Your task to perform on an android device: clear all cookies in the chrome app Image 0: 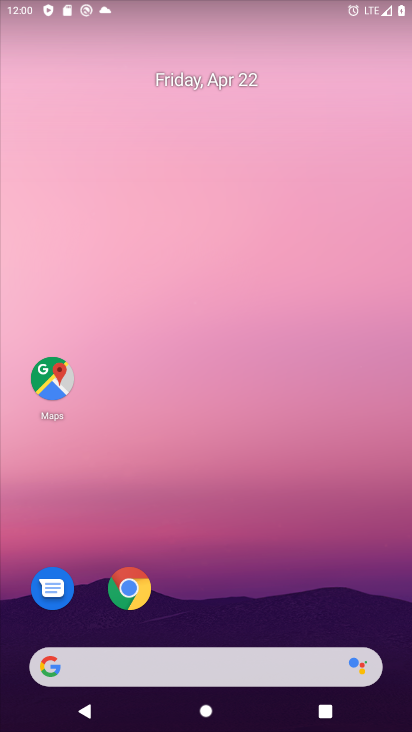
Step 0: drag from (229, 688) to (223, 205)
Your task to perform on an android device: clear all cookies in the chrome app Image 1: 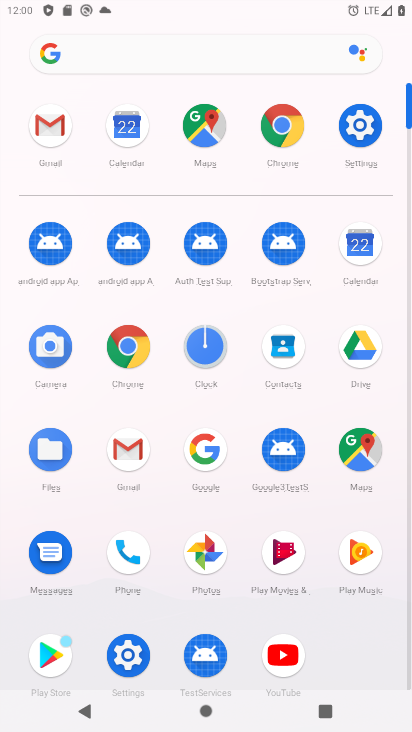
Step 1: click (139, 349)
Your task to perform on an android device: clear all cookies in the chrome app Image 2: 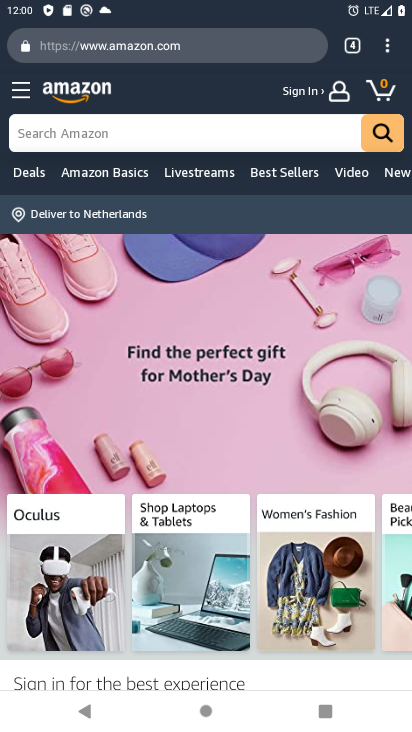
Step 2: click (382, 53)
Your task to perform on an android device: clear all cookies in the chrome app Image 3: 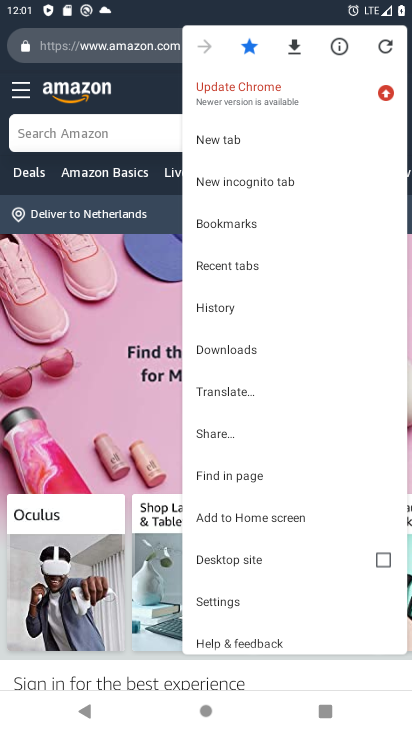
Step 3: click (236, 605)
Your task to perform on an android device: clear all cookies in the chrome app Image 4: 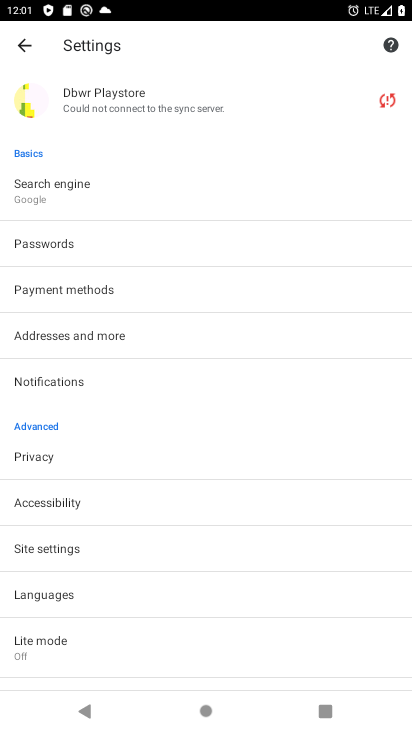
Step 4: click (64, 549)
Your task to perform on an android device: clear all cookies in the chrome app Image 5: 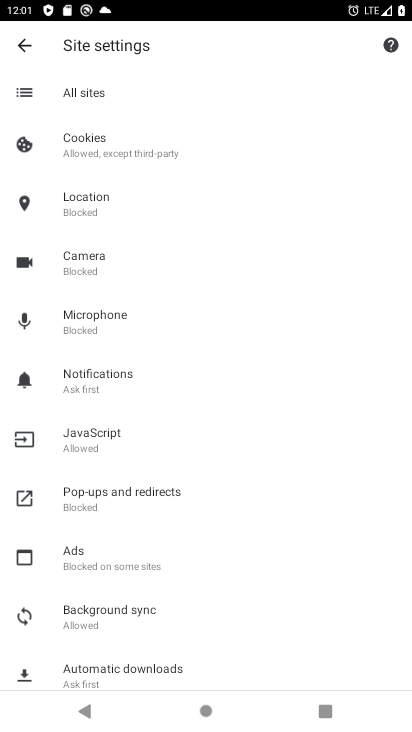
Step 5: click (30, 48)
Your task to perform on an android device: clear all cookies in the chrome app Image 6: 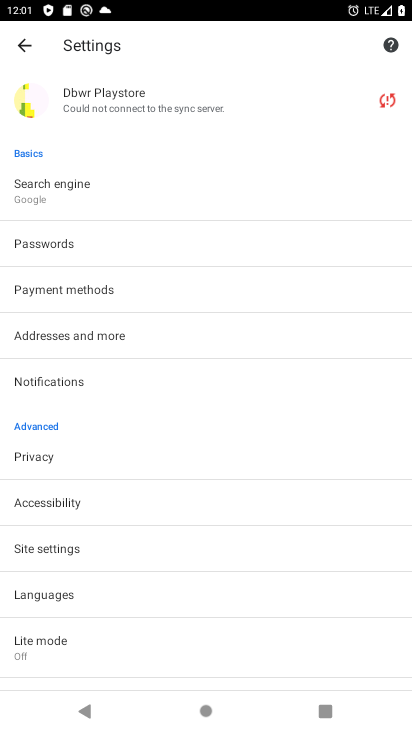
Step 6: click (66, 462)
Your task to perform on an android device: clear all cookies in the chrome app Image 7: 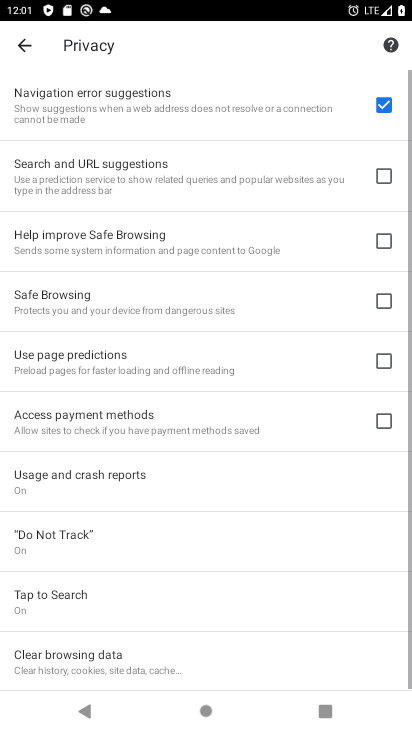
Step 7: click (143, 642)
Your task to perform on an android device: clear all cookies in the chrome app Image 8: 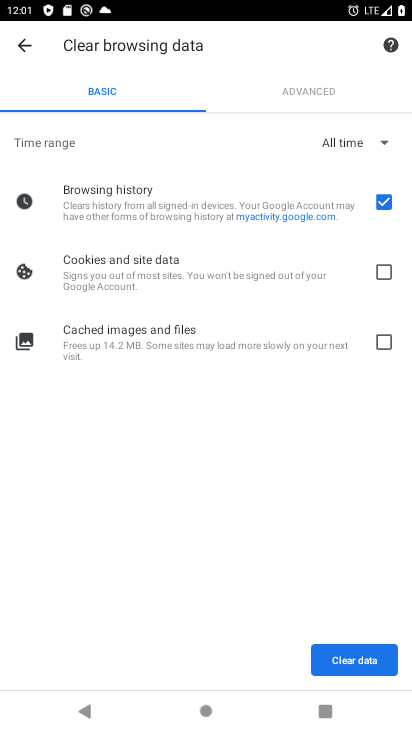
Step 8: click (391, 200)
Your task to perform on an android device: clear all cookies in the chrome app Image 9: 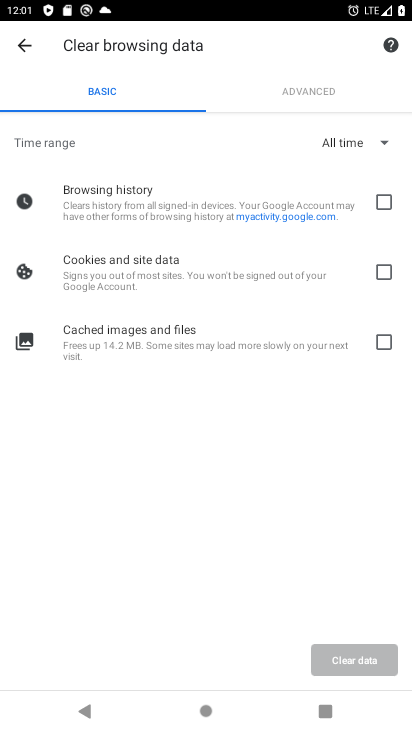
Step 9: click (382, 280)
Your task to perform on an android device: clear all cookies in the chrome app Image 10: 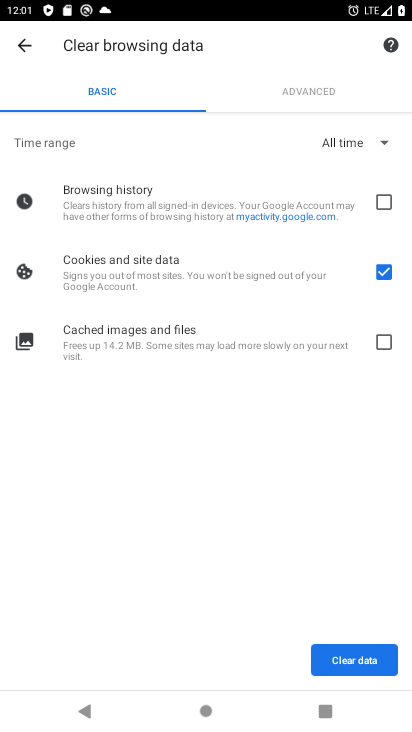
Step 10: click (378, 654)
Your task to perform on an android device: clear all cookies in the chrome app Image 11: 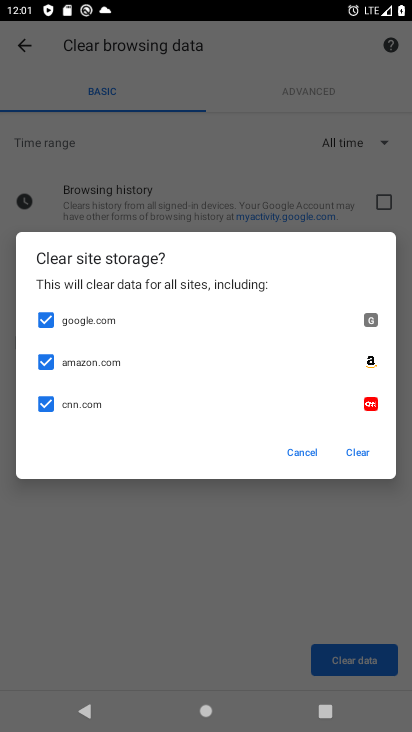
Step 11: task complete